Your task to perform on an android device: change your default location settings in chrome Image 0: 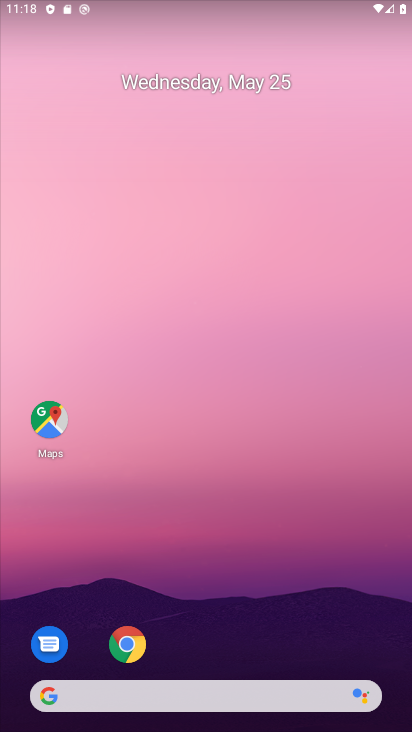
Step 0: drag from (212, 645) to (195, 230)
Your task to perform on an android device: change your default location settings in chrome Image 1: 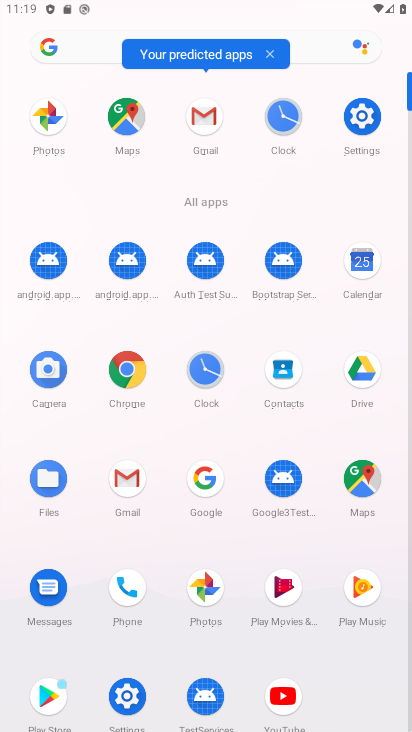
Step 1: click (368, 124)
Your task to perform on an android device: change your default location settings in chrome Image 2: 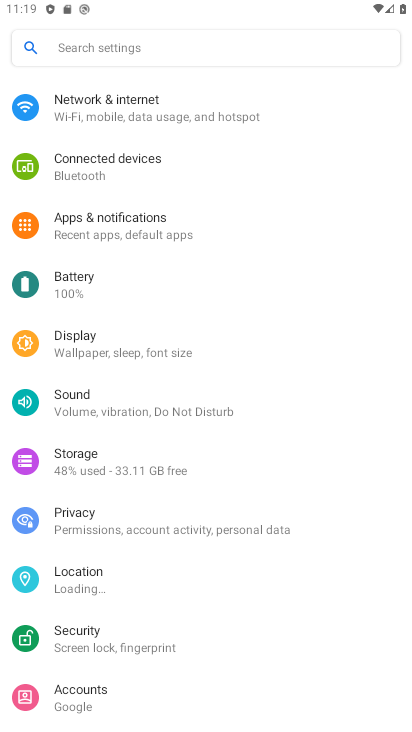
Step 2: press home button
Your task to perform on an android device: change your default location settings in chrome Image 3: 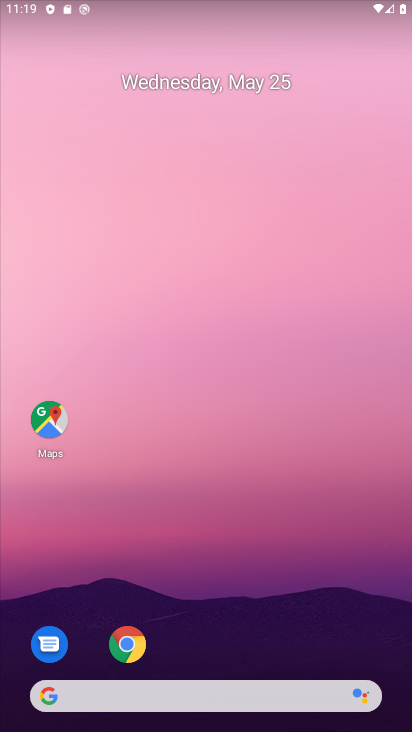
Step 3: click (138, 632)
Your task to perform on an android device: change your default location settings in chrome Image 4: 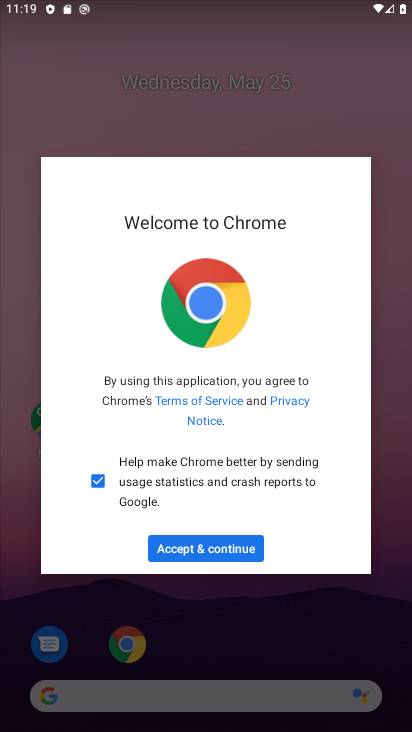
Step 4: click (226, 551)
Your task to perform on an android device: change your default location settings in chrome Image 5: 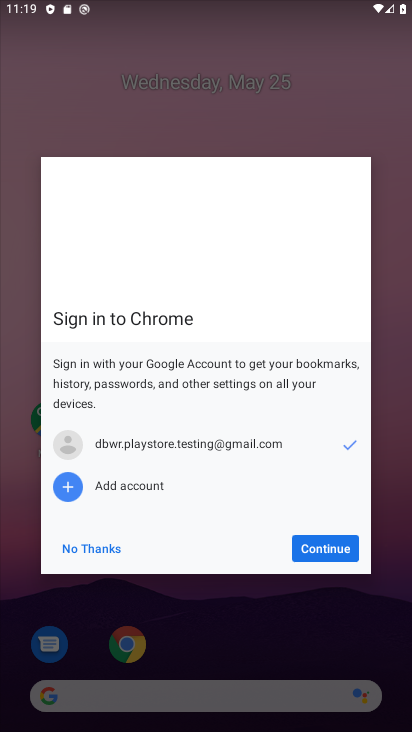
Step 5: click (309, 547)
Your task to perform on an android device: change your default location settings in chrome Image 6: 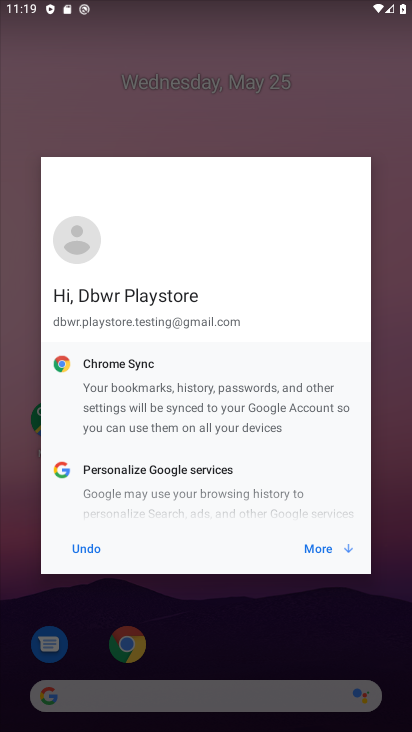
Step 6: click (333, 541)
Your task to perform on an android device: change your default location settings in chrome Image 7: 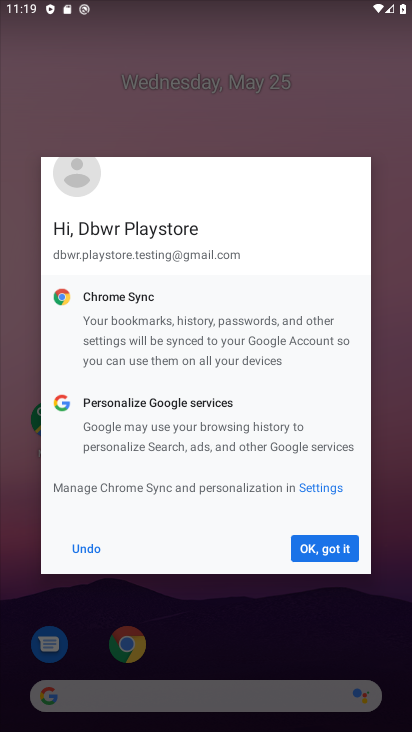
Step 7: click (333, 541)
Your task to perform on an android device: change your default location settings in chrome Image 8: 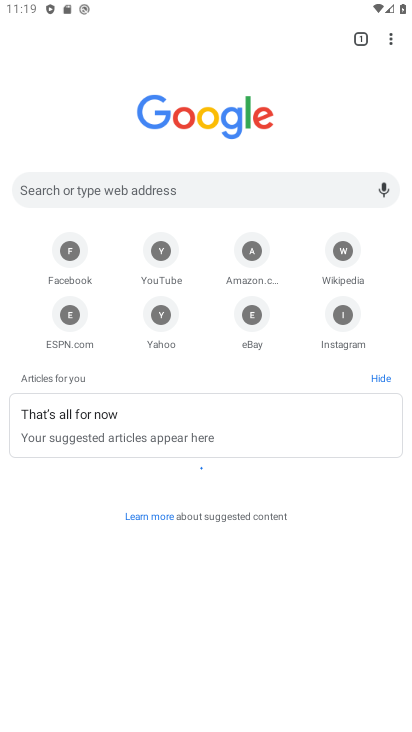
Step 8: click (393, 38)
Your task to perform on an android device: change your default location settings in chrome Image 9: 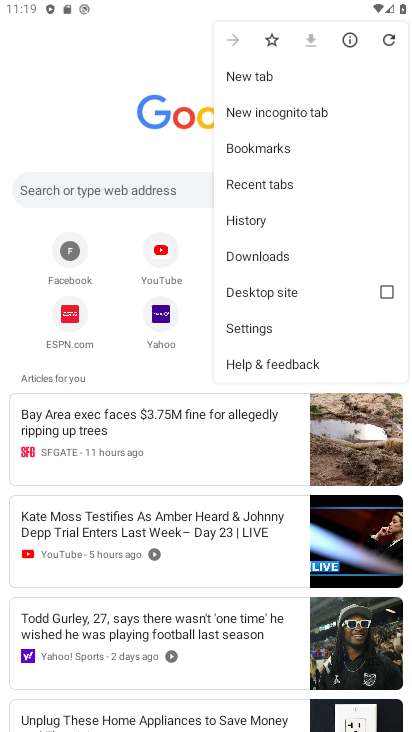
Step 9: click (258, 326)
Your task to perform on an android device: change your default location settings in chrome Image 10: 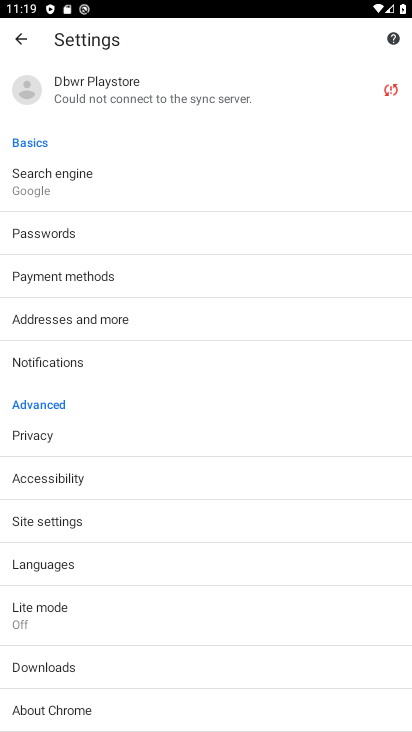
Step 10: drag from (203, 638) to (199, 315)
Your task to perform on an android device: change your default location settings in chrome Image 11: 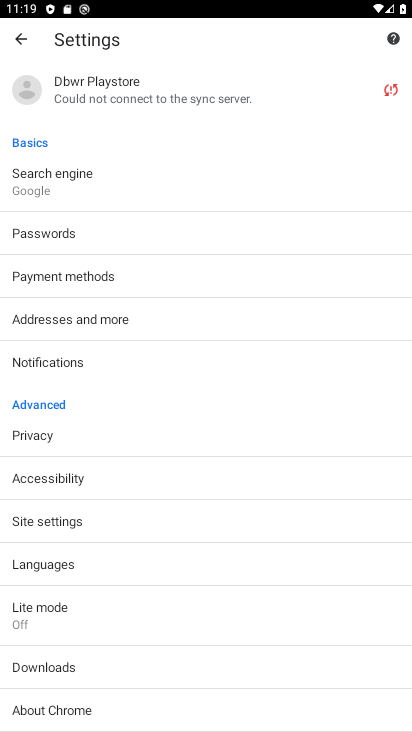
Step 11: click (64, 524)
Your task to perform on an android device: change your default location settings in chrome Image 12: 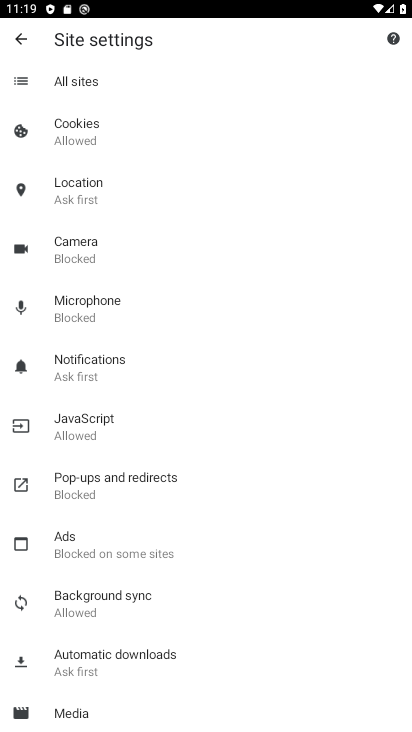
Step 12: click (145, 178)
Your task to perform on an android device: change your default location settings in chrome Image 13: 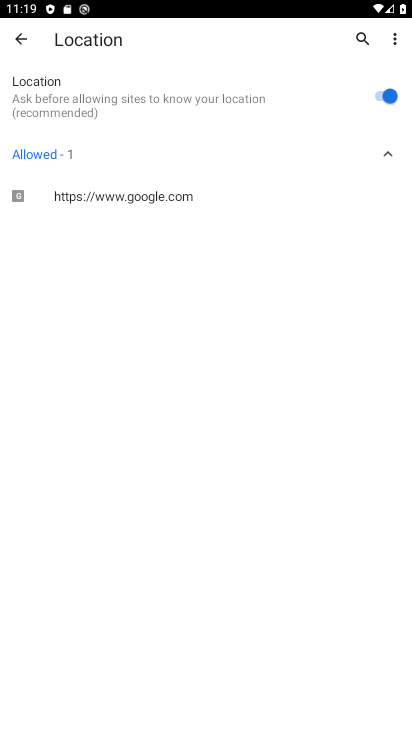
Step 13: click (378, 84)
Your task to perform on an android device: change your default location settings in chrome Image 14: 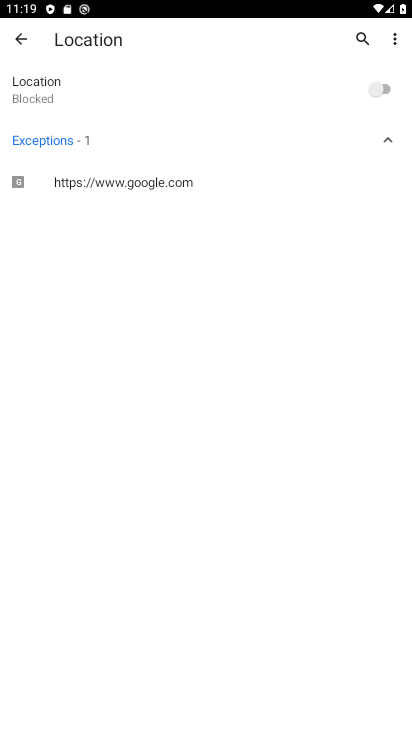
Step 14: task complete